Your task to perform on an android device: Search for vegetarian restaurants on Maps Image 0: 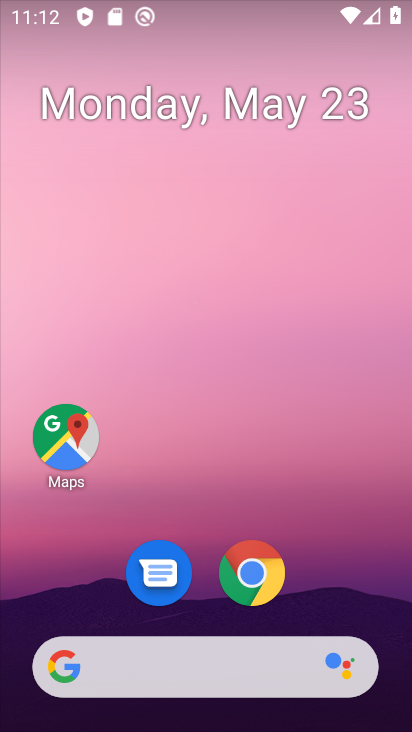
Step 0: drag from (382, 600) to (386, 276)
Your task to perform on an android device: Search for vegetarian restaurants on Maps Image 1: 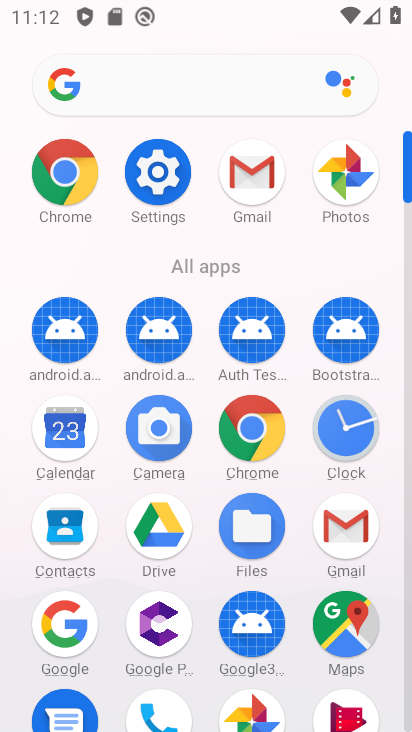
Step 1: drag from (400, 655) to (395, 369)
Your task to perform on an android device: Search for vegetarian restaurants on Maps Image 2: 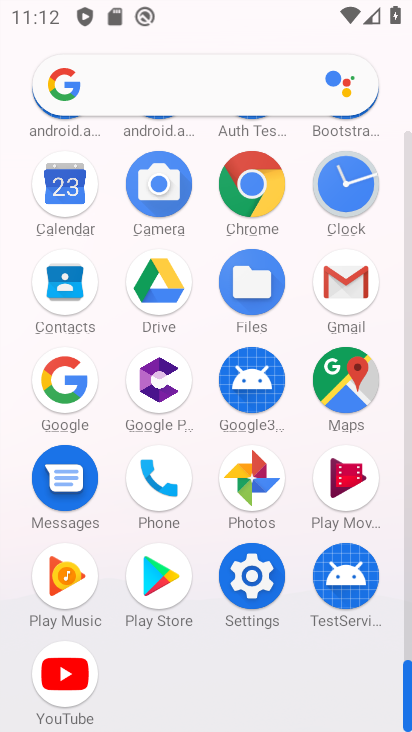
Step 2: click (350, 399)
Your task to perform on an android device: Search for vegetarian restaurants on Maps Image 3: 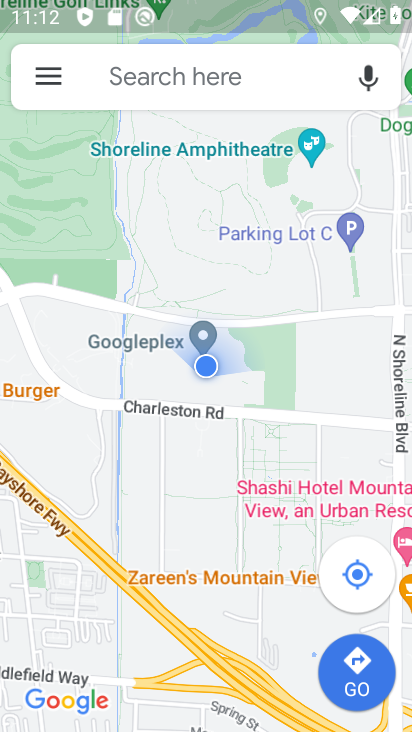
Step 3: click (230, 76)
Your task to perform on an android device: Search for vegetarian restaurants on Maps Image 4: 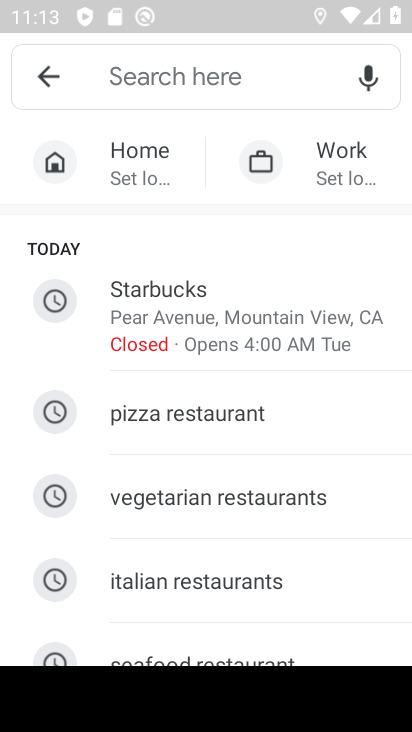
Step 4: type "vegetrain restaurants"
Your task to perform on an android device: Search for vegetarian restaurants on Maps Image 5: 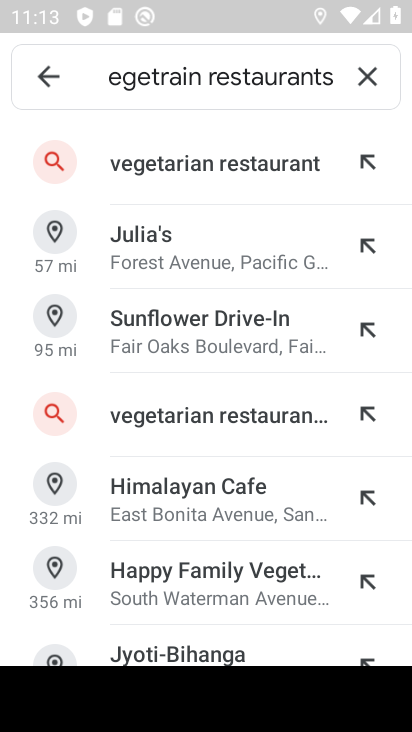
Step 5: click (215, 180)
Your task to perform on an android device: Search for vegetarian restaurants on Maps Image 6: 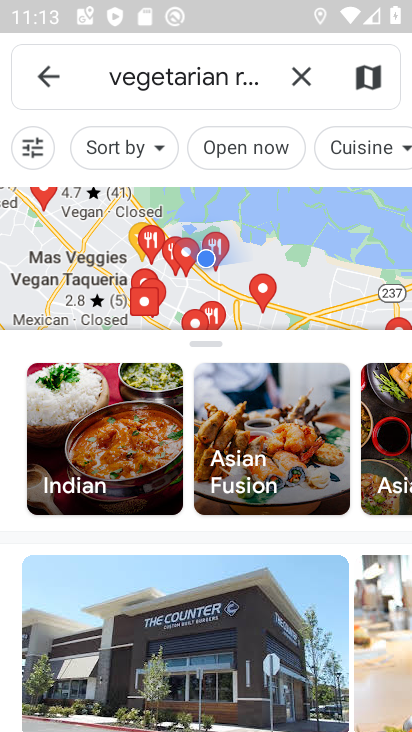
Step 6: task complete